Your task to perform on an android device: Go to Amazon Image 0: 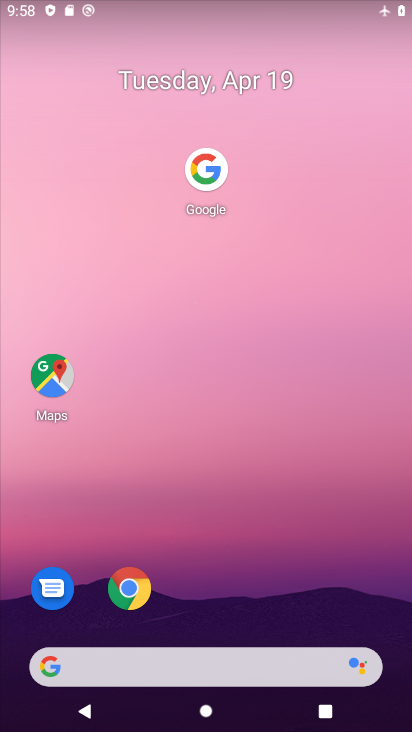
Step 0: click (129, 592)
Your task to perform on an android device: Go to Amazon Image 1: 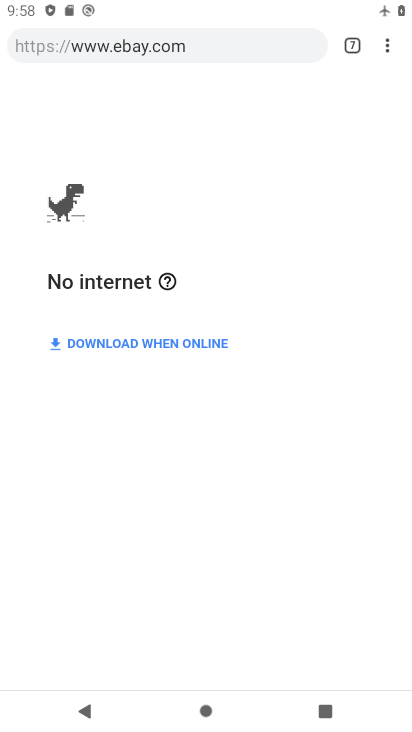
Step 1: click (390, 46)
Your task to perform on an android device: Go to Amazon Image 2: 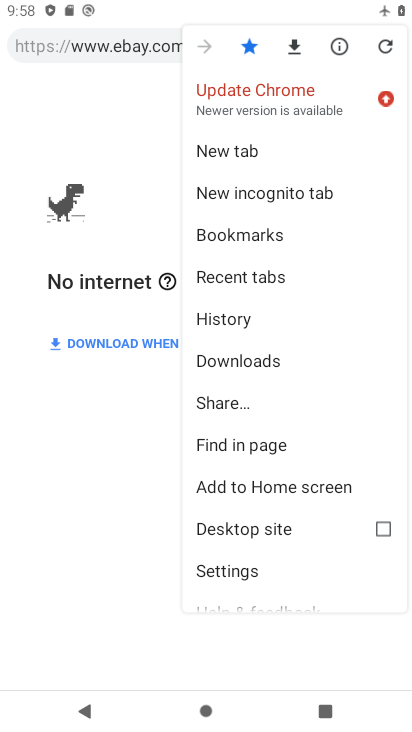
Step 2: click (230, 144)
Your task to perform on an android device: Go to Amazon Image 3: 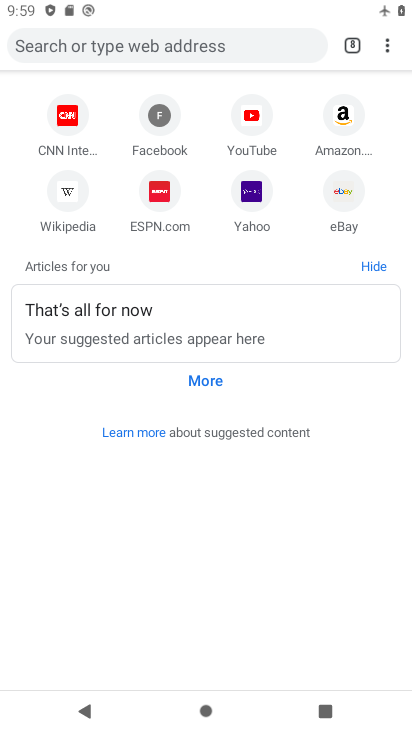
Step 3: click (335, 120)
Your task to perform on an android device: Go to Amazon Image 4: 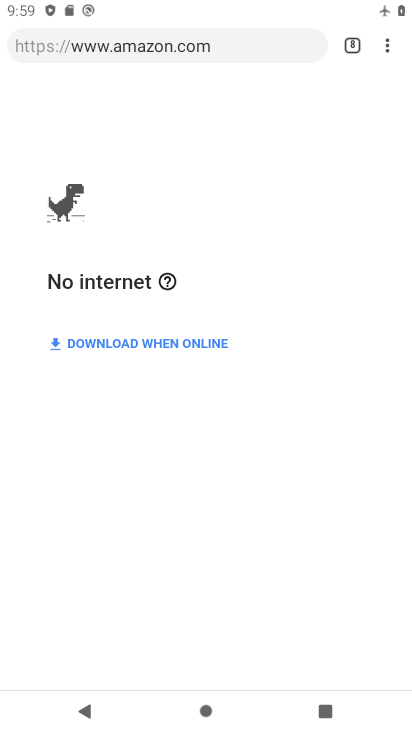
Step 4: task complete